Your task to perform on an android device: Go to network settings Image 0: 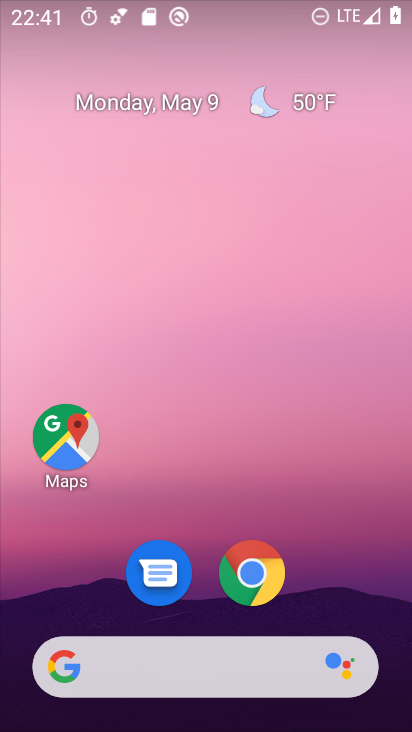
Step 0: drag from (348, 554) to (301, 140)
Your task to perform on an android device: Go to network settings Image 1: 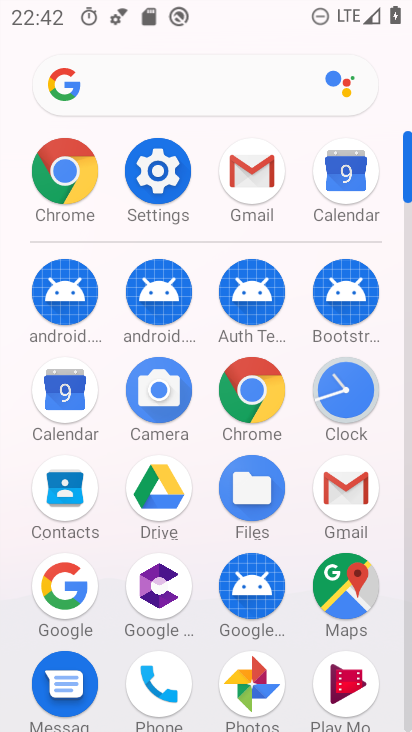
Step 1: click (159, 160)
Your task to perform on an android device: Go to network settings Image 2: 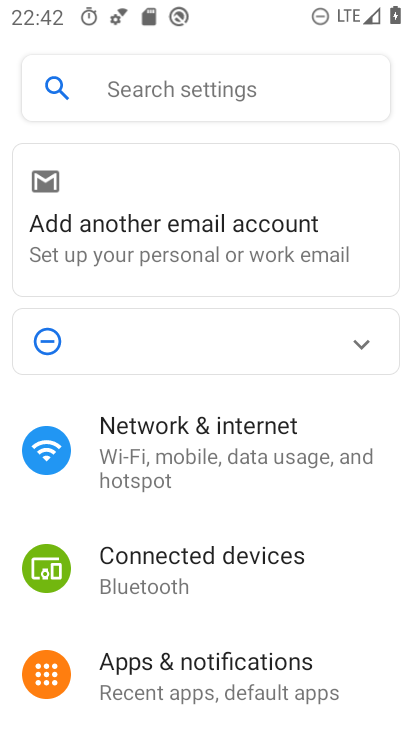
Step 2: click (219, 437)
Your task to perform on an android device: Go to network settings Image 3: 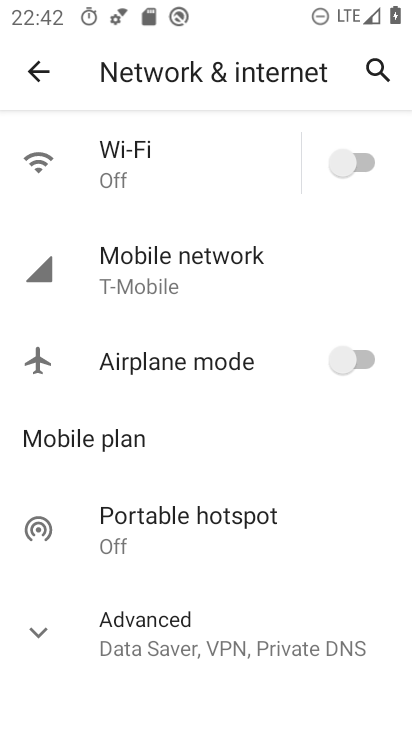
Step 3: click (199, 186)
Your task to perform on an android device: Go to network settings Image 4: 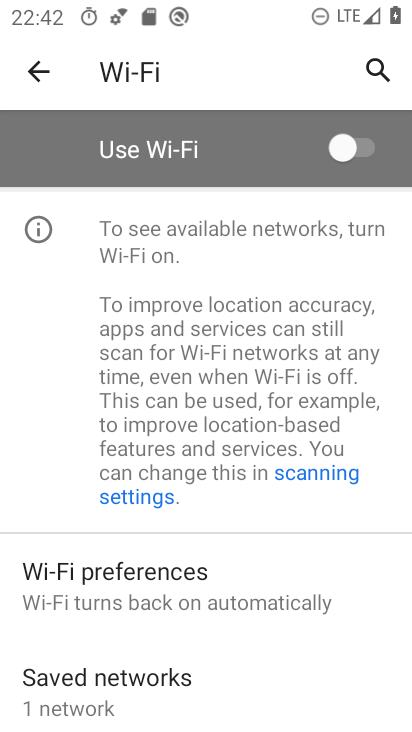
Step 4: click (206, 177)
Your task to perform on an android device: Go to network settings Image 5: 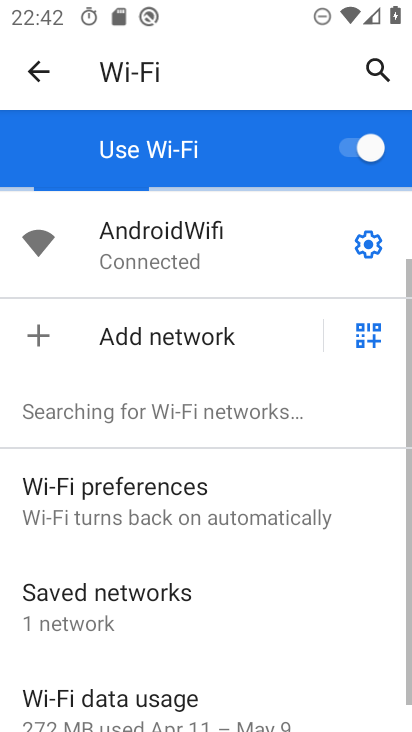
Step 5: click (372, 238)
Your task to perform on an android device: Go to network settings Image 6: 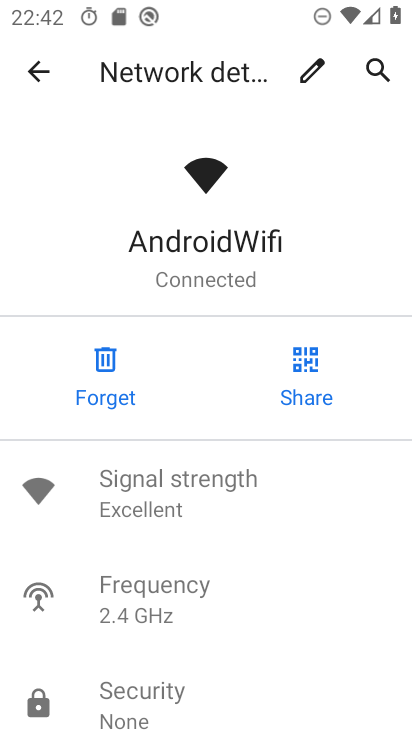
Step 6: task complete